Your task to perform on an android device: turn off location Image 0: 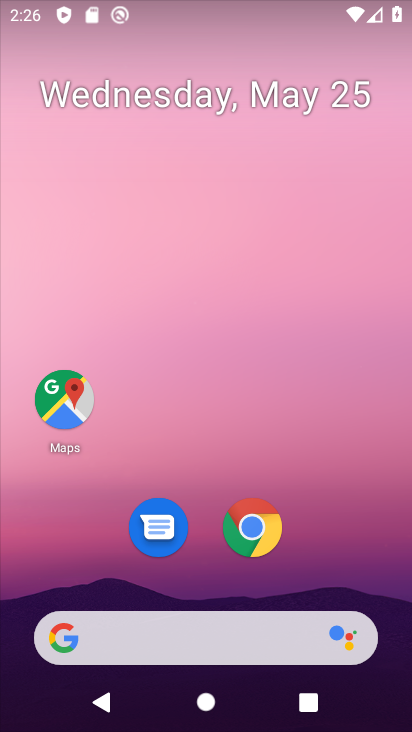
Step 0: drag from (168, 490) to (246, 54)
Your task to perform on an android device: turn off location Image 1: 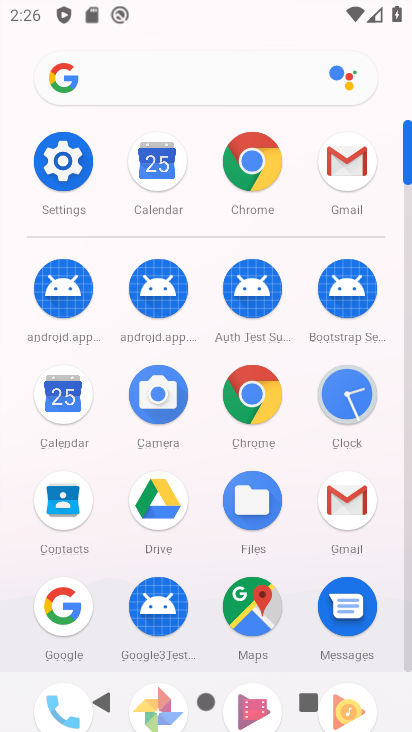
Step 1: click (69, 177)
Your task to perform on an android device: turn off location Image 2: 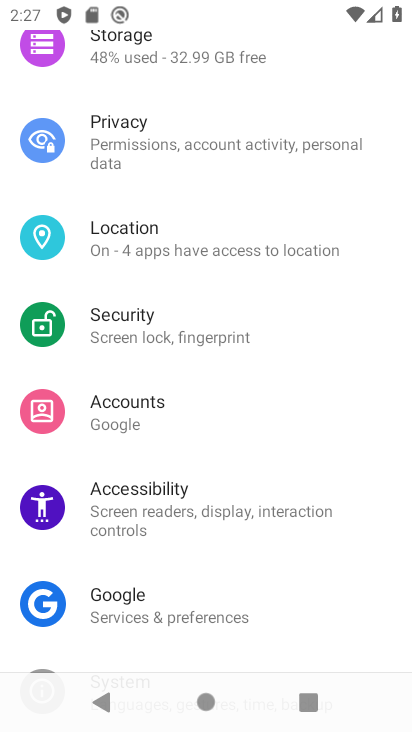
Step 2: click (160, 224)
Your task to perform on an android device: turn off location Image 3: 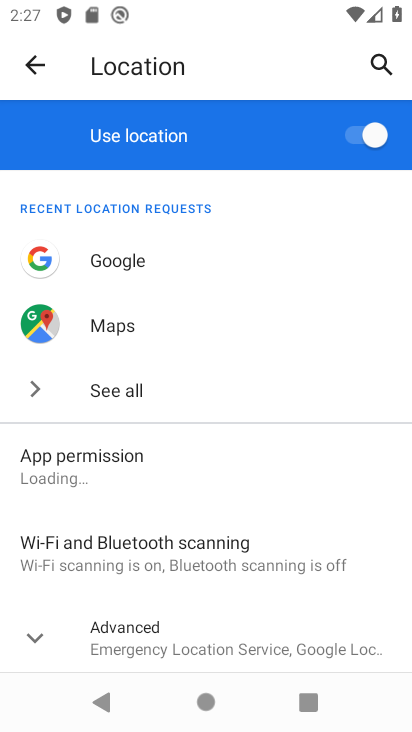
Step 3: click (359, 131)
Your task to perform on an android device: turn off location Image 4: 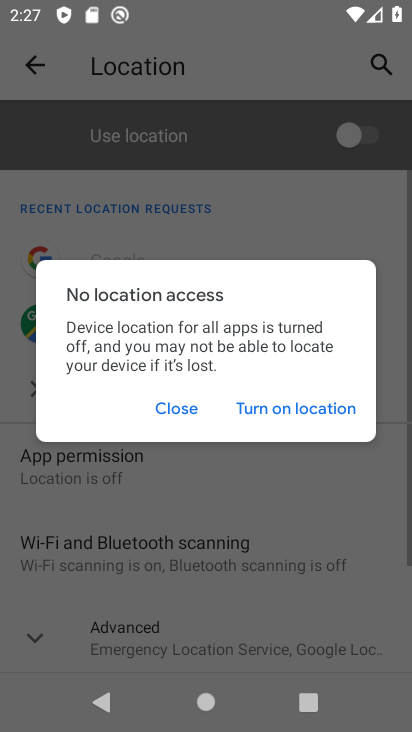
Step 4: task complete